Your task to perform on an android device: Add corsair k70 to the cart on amazon.com, then select checkout. Image 0: 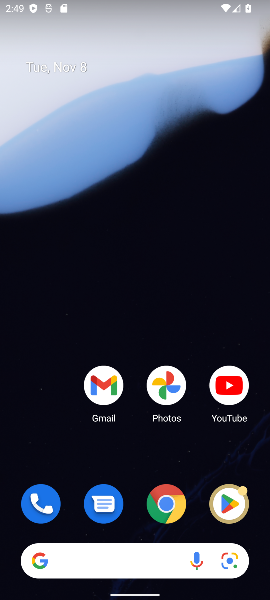
Step 0: drag from (147, 512) to (206, 72)
Your task to perform on an android device: Add corsair k70 to the cart on amazon.com, then select checkout. Image 1: 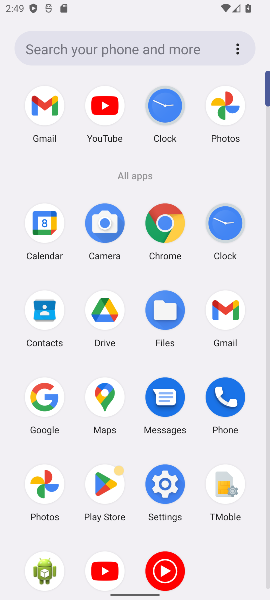
Step 1: click (169, 234)
Your task to perform on an android device: Add corsair k70 to the cart on amazon.com, then select checkout. Image 2: 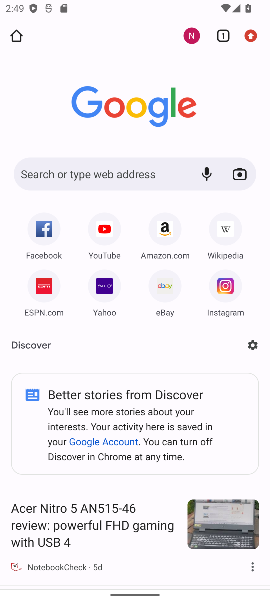
Step 2: click (56, 171)
Your task to perform on an android device: Add corsair k70 to the cart on amazon.com, then select checkout. Image 3: 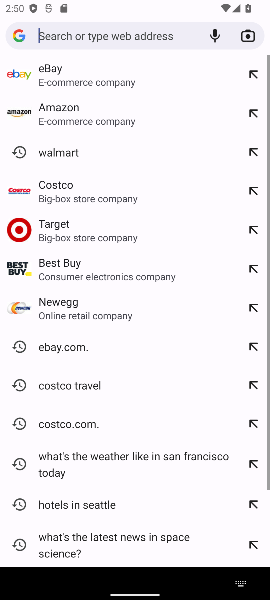
Step 3: type "amazon.com"
Your task to perform on an android device: Add corsair k70 to the cart on amazon.com, then select checkout. Image 4: 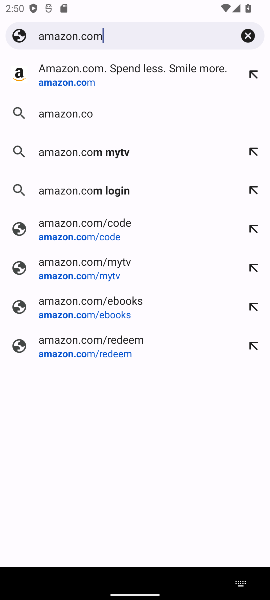
Step 4: press enter
Your task to perform on an android device: Add corsair k70 to the cart on amazon.com, then select checkout. Image 5: 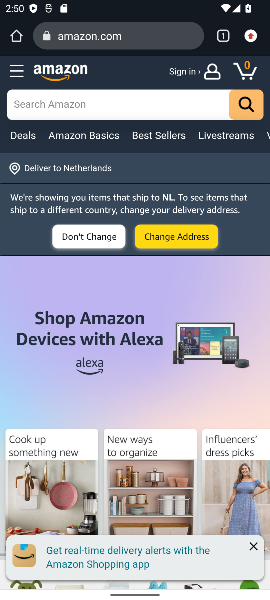
Step 5: click (31, 84)
Your task to perform on an android device: Add corsair k70 to the cart on amazon.com, then select checkout. Image 6: 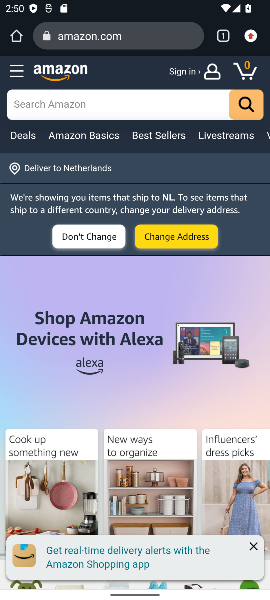
Step 6: click (35, 102)
Your task to perform on an android device: Add corsair k70 to the cart on amazon.com, then select checkout. Image 7: 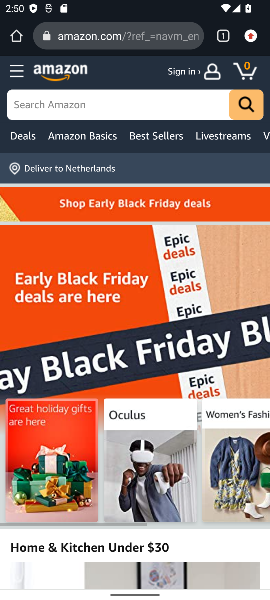
Step 7: click (100, 101)
Your task to perform on an android device: Add corsair k70 to the cart on amazon.com, then select checkout. Image 8: 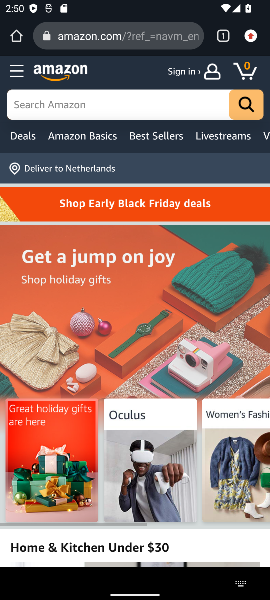
Step 8: type "corsair k70 "
Your task to perform on an android device: Add corsair k70 to the cart on amazon.com, then select checkout. Image 9: 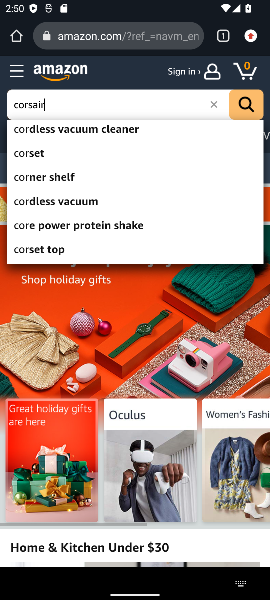
Step 9: press enter
Your task to perform on an android device: Add corsair k70 to the cart on amazon.com, then select checkout. Image 10: 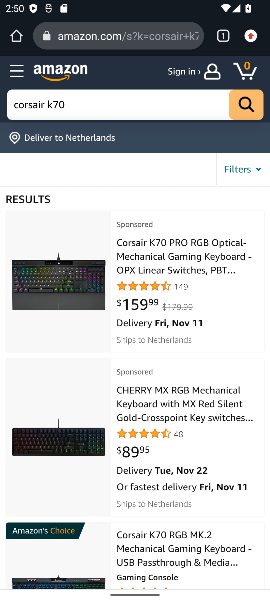
Step 10: click (15, 286)
Your task to perform on an android device: Add corsair k70 to the cart on amazon.com, then select checkout. Image 11: 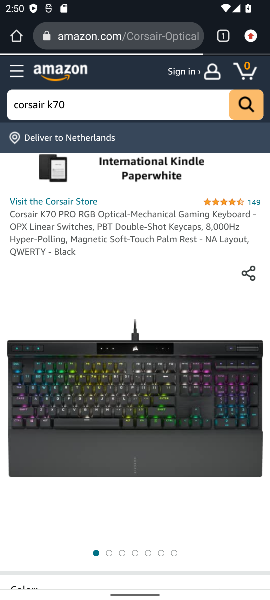
Step 11: drag from (145, 431) to (148, 234)
Your task to perform on an android device: Add corsair k70 to the cart on amazon.com, then select checkout. Image 12: 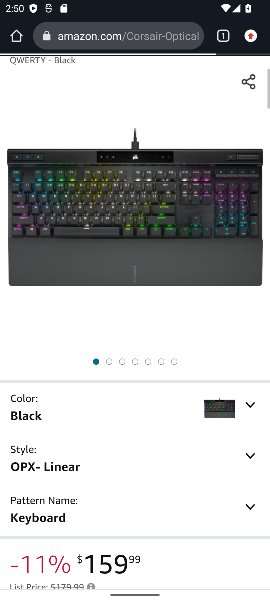
Step 12: drag from (164, 402) to (149, 158)
Your task to perform on an android device: Add corsair k70 to the cart on amazon.com, then select checkout. Image 13: 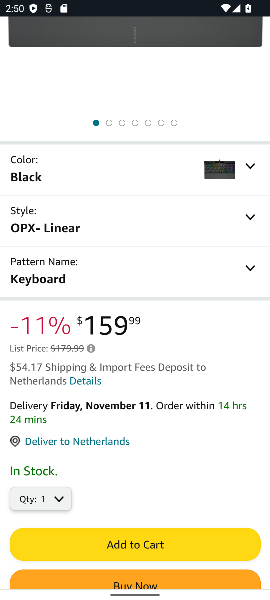
Step 13: drag from (166, 444) to (177, 207)
Your task to perform on an android device: Add corsair k70 to the cart on amazon.com, then select checkout. Image 14: 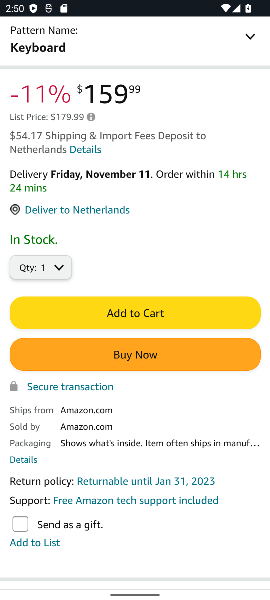
Step 14: click (169, 314)
Your task to perform on an android device: Add corsair k70 to the cart on amazon.com, then select checkout. Image 15: 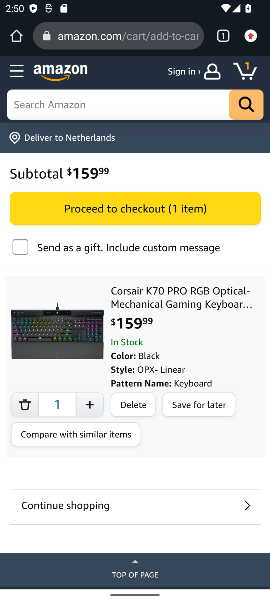
Step 15: click (113, 196)
Your task to perform on an android device: Add corsair k70 to the cart on amazon.com, then select checkout. Image 16: 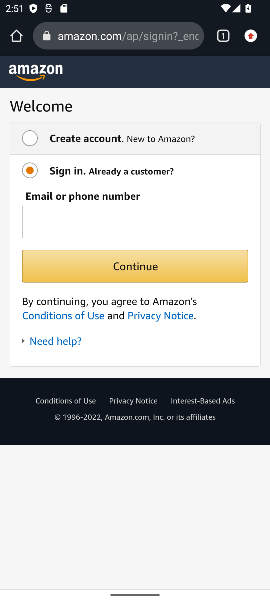
Step 16: task complete